Your task to perform on an android device: open wifi settings Image 0: 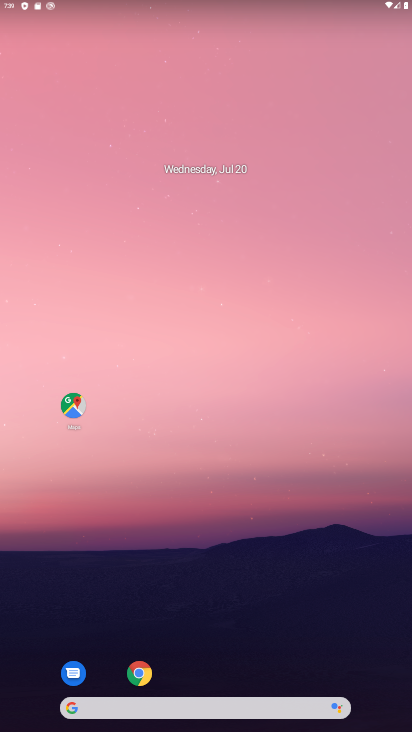
Step 0: drag from (210, 626) to (265, 160)
Your task to perform on an android device: open wifi settings Image 1: 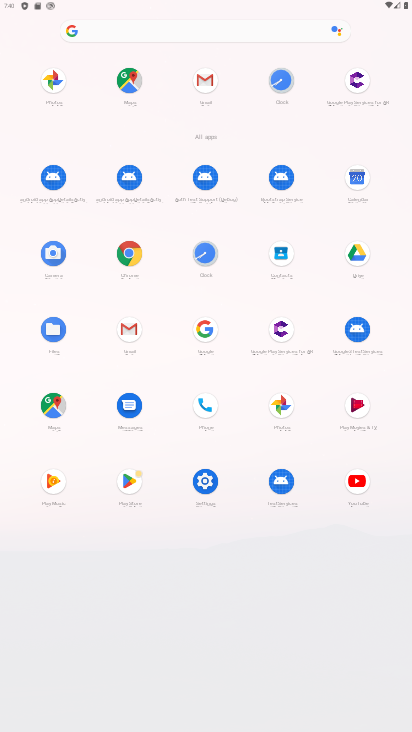
Step 1: click (203, 488)
Your task to perform on an android device: open wifi settings Image 2: 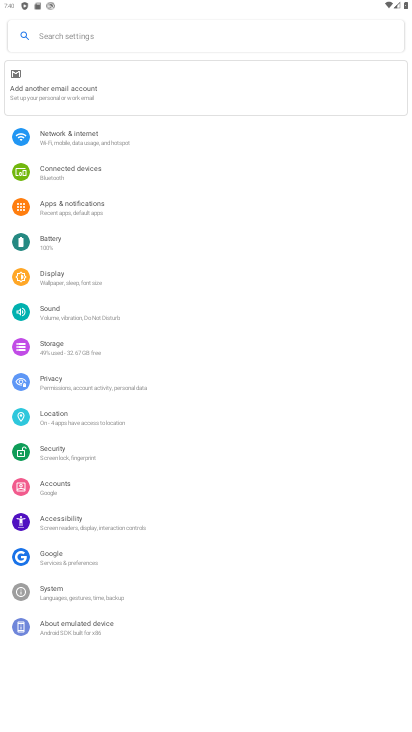
Step 2: click (142, 131)
Your task to perform on an android device: open wifi settings Image 3: 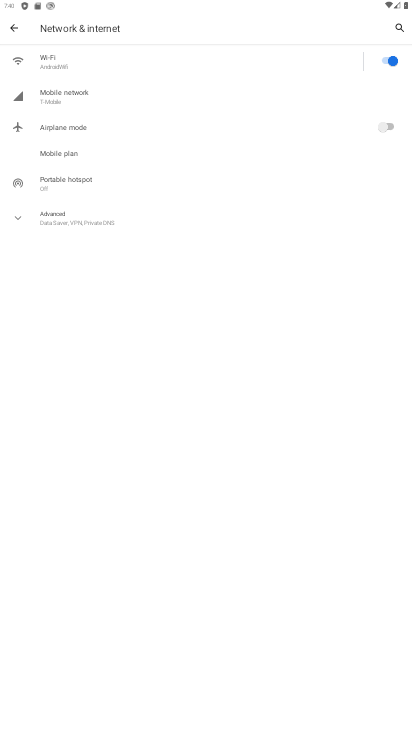
Step 3: click (81, 58)
Your task to perform on an android device: open wifi settings Image 4: 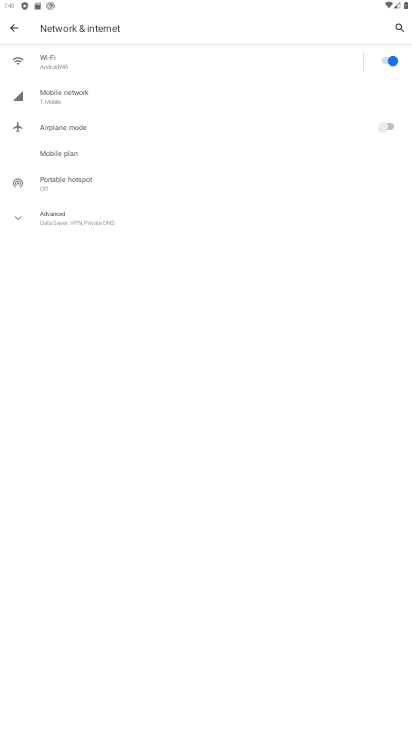
Step 4: click (81, 58)
Your task to perform on an android device: open wifi settings Image 5: 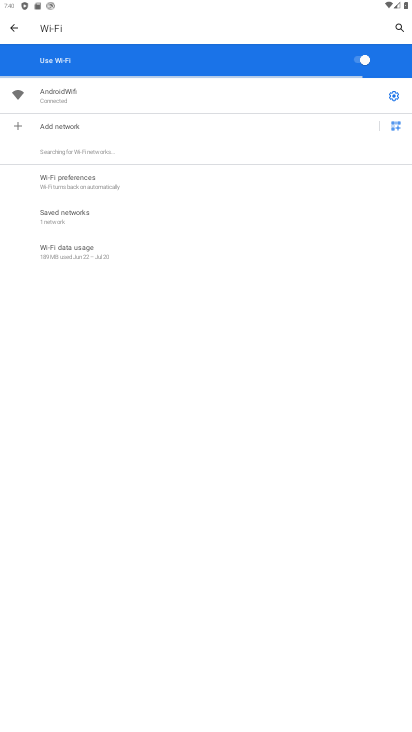
Step 5: click (394, 91)
Your task to perform on an android device: open wifi settings Image 6: 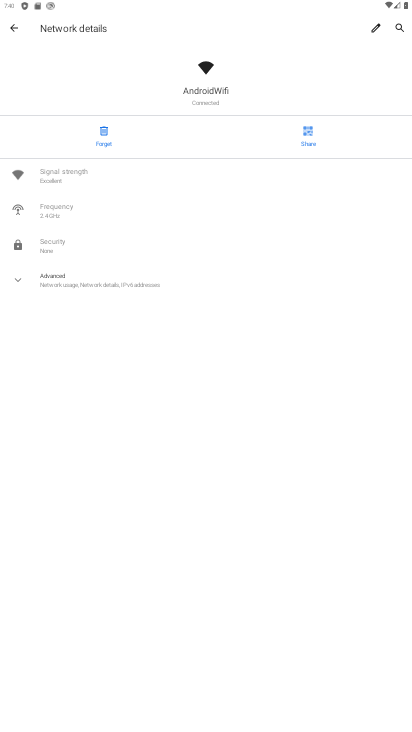
Step 6: task complete